Your task to perform on an android device: Go to Maps Image 0: 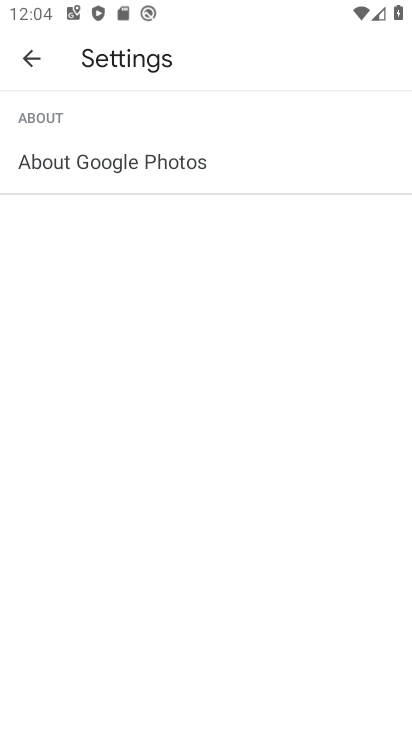
Step 0: press home button
Your task to perform on an android device: Go to Maps Image 1: 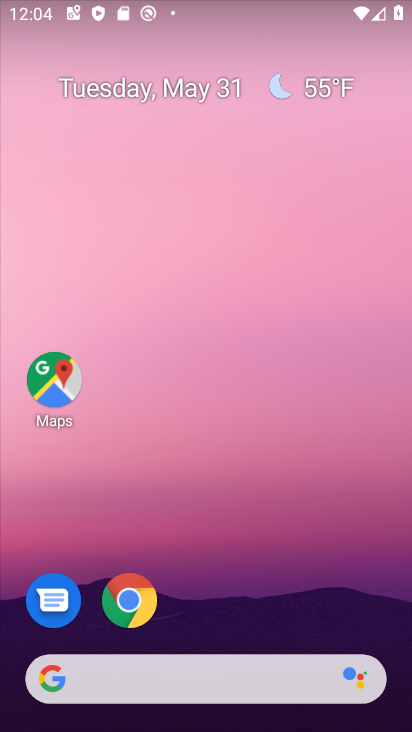
Step 1: click (55, 371)
Your task to perform on an android device: Go to Maps Image 2: 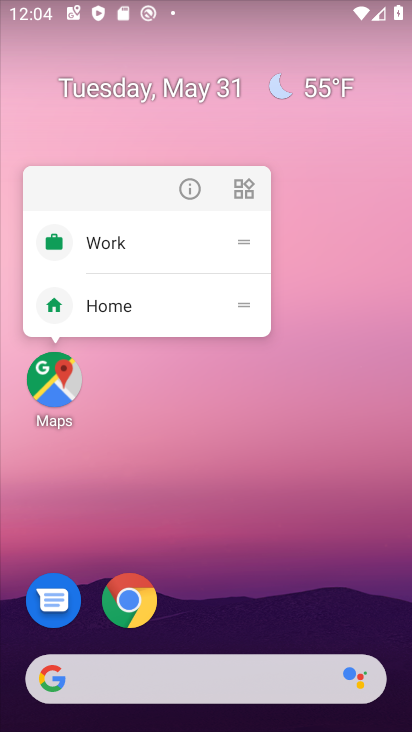
Step 2: click (55, 371)
Your task to perform on an android device: Go to Maps Image 3: 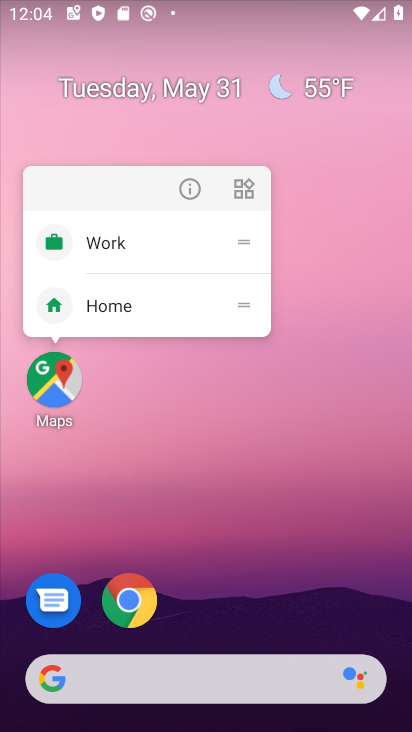
Step 3: click (60, 387)
Your task to perform on an android device: Go to Maps Image 4: 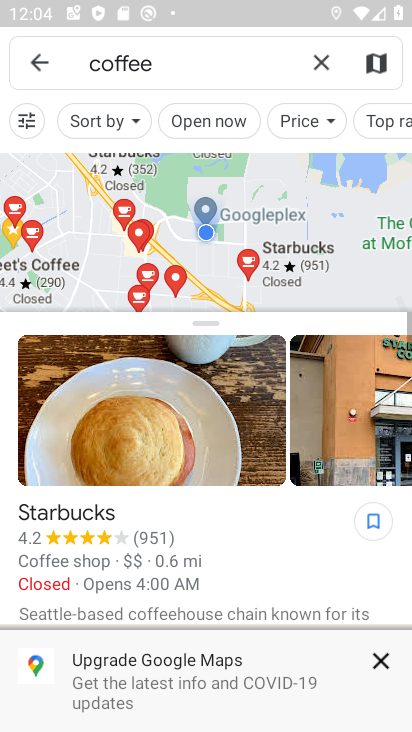
Step 4: click (320, 55)
Your task to perform on an android device: Go to Maps Image 5: 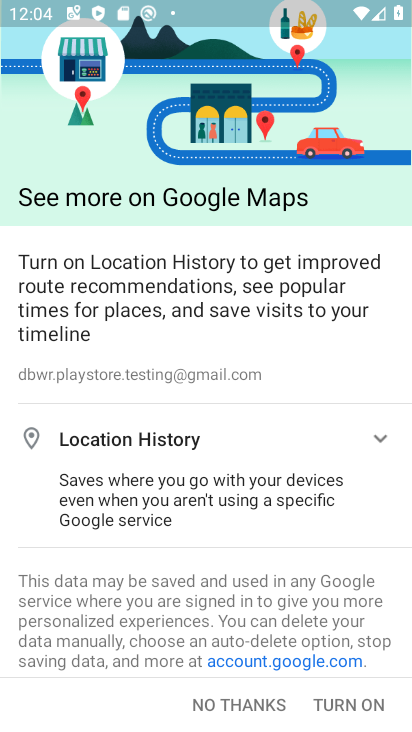
Step 5: click (367, 708)
Your task to perform on an android device: Go to Maps Image 6: 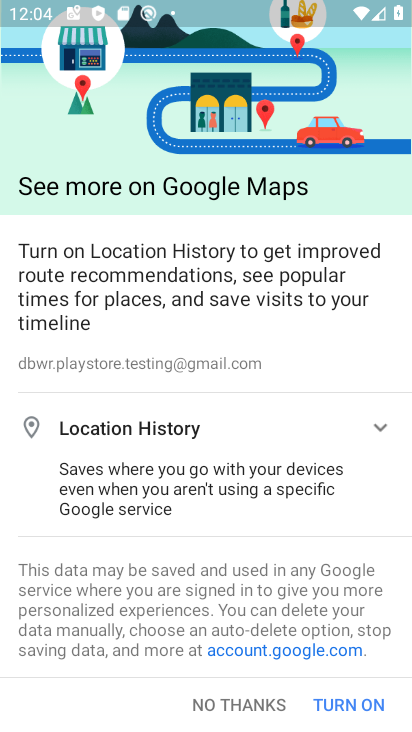
Step 6: click (255, 703)
Your task to perform on an android device: Go to Maps Image 7: 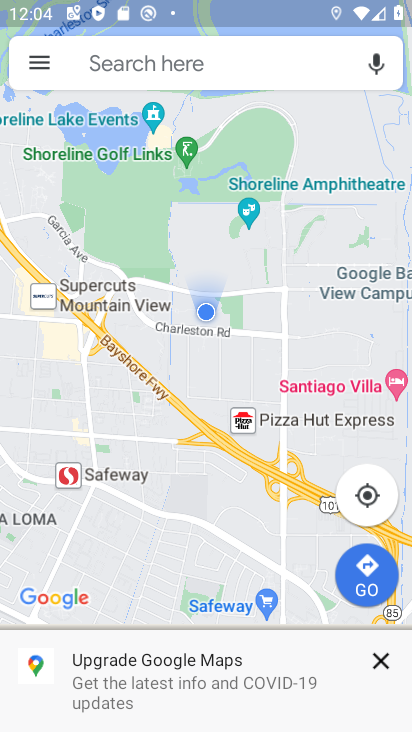
Step 7: task complete